Your task to perform on an android device: Open Google Chrome Image 0: 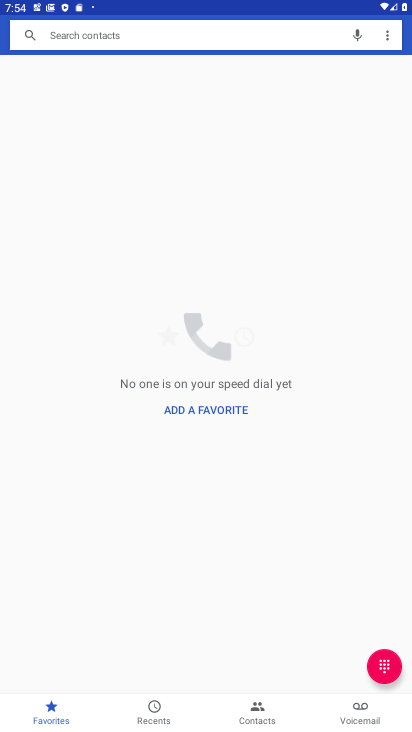
Step 0: press home button
Your task to perform on an android device: Open Google Chrome Image 1: 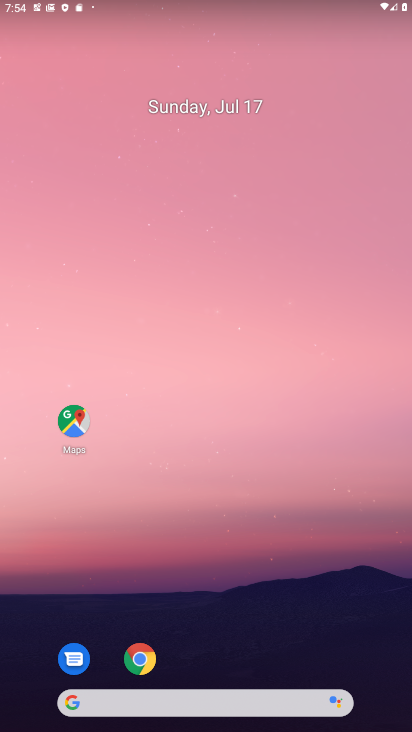
Step 1: click (151, 661)
Your task to perform on an android device: Open Google Chrome Image 2: 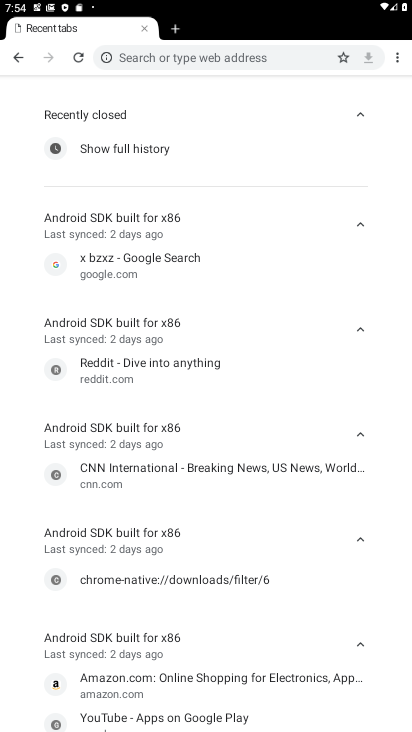
Step 2: click (11, 57)
Your task to perform on an android device: Open Google Chrome Image 3: 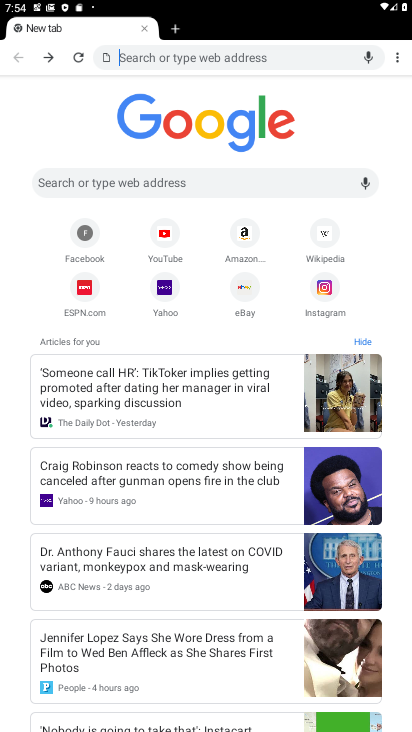
Step 3: task complete